Your task to perform on an android device: Open wifi settings Image 0: 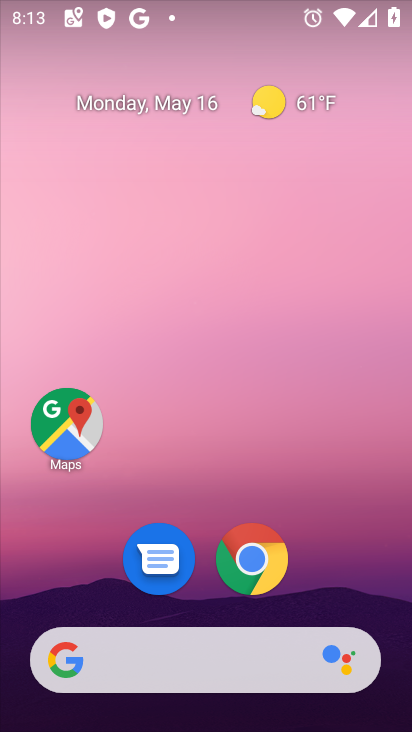
Step 0: drag from (321, 535) to (397, 124)
Your task to perform on an android device: Open wifi settings Image 1: 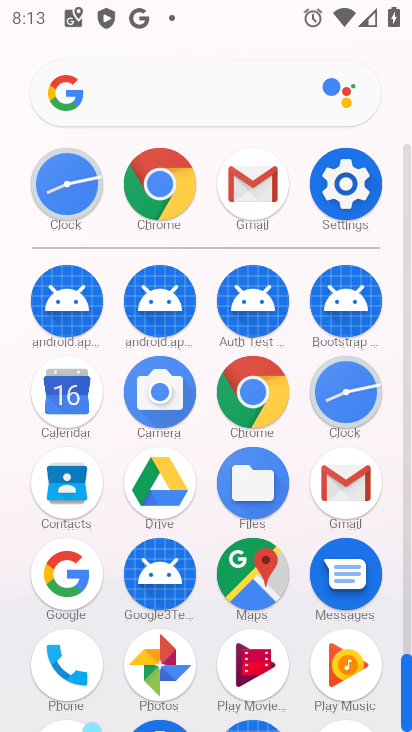
Step 1: click (309, 176)
Your task to perform on an android device: Open wifi settings Image 2: 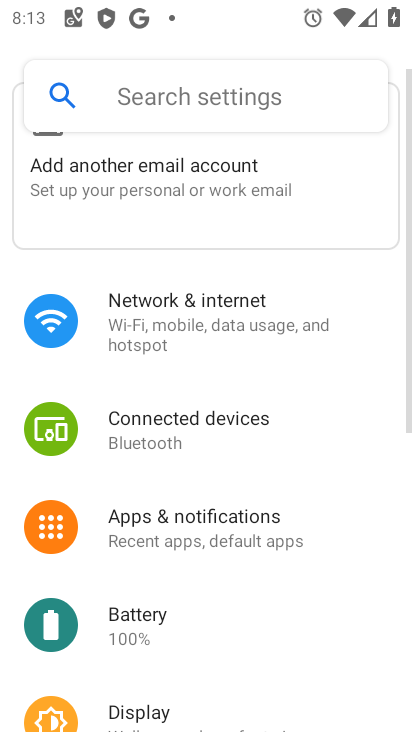
Step 2: click (271, 344)
Your task to perform on an android device: Open wifi settings Image 3: 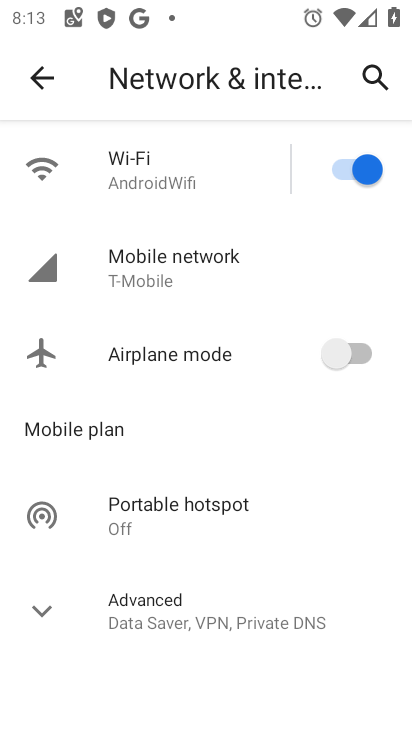
Step 3: click (249, 160)
Your task to perform on an android device: Open wifi settings Image 4: 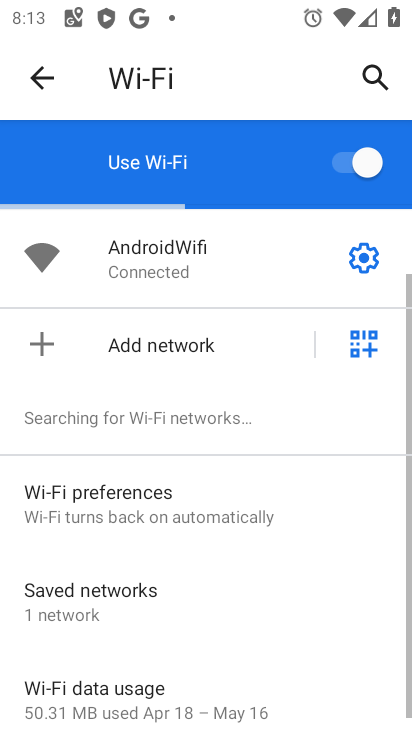
Step 4: click (362, 274)
Your task to perform on an android device: Open wifi settings Image 5: 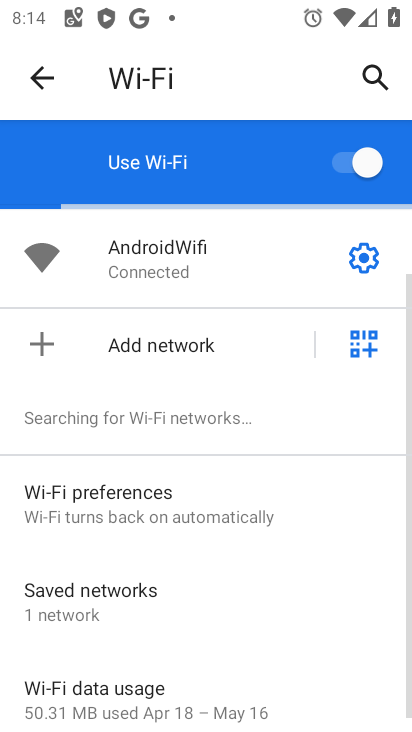
Step 5: task complete